Your task to perform on an android device: Go to privacy settings Image 0: 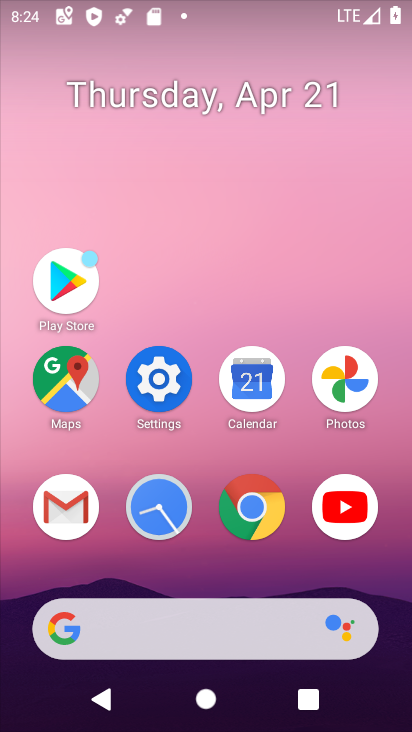
Step 0: click (163, 381)
Your task to perform on an android device: Go to privacy settings Image 1: 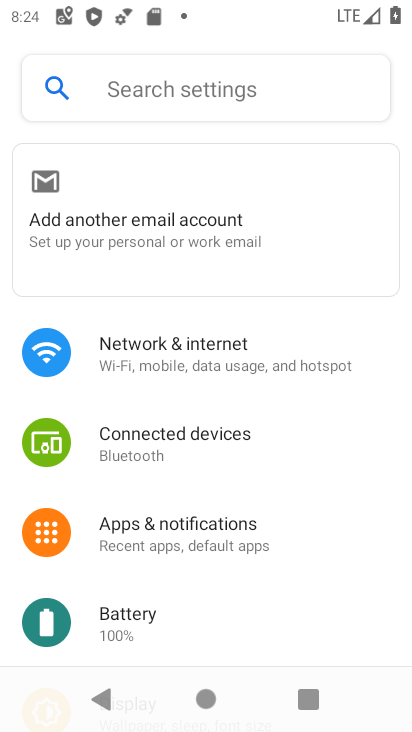
Step 1: drag from (348, 539) to (305, 95)
Your task to perform on an android device: Go to privacy settings Image 2: 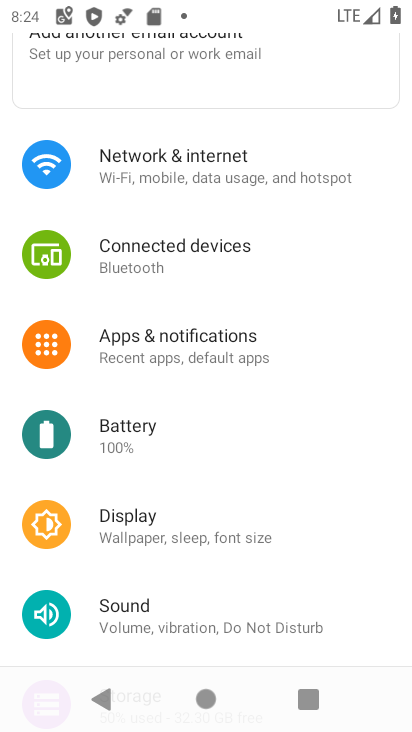
Step 2: drag from (326, 466) to (274, 96)
Your task to perform on an android device: Go to privacy settings Image 3: 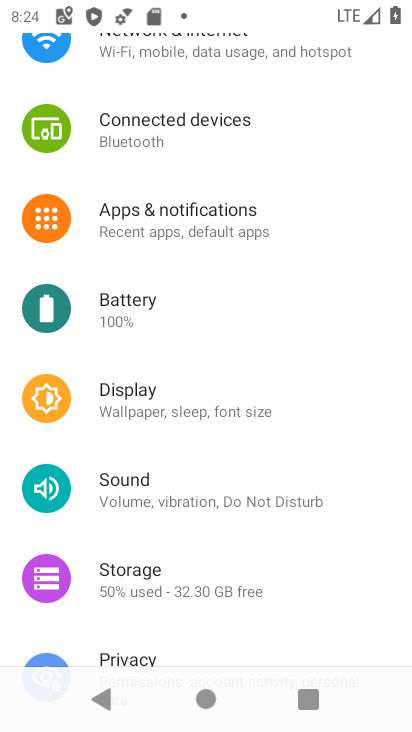
Step 3: drag from (307, 549) to (235, 160)
Your task to perform on an android device: Go to privacy settings Image 4: 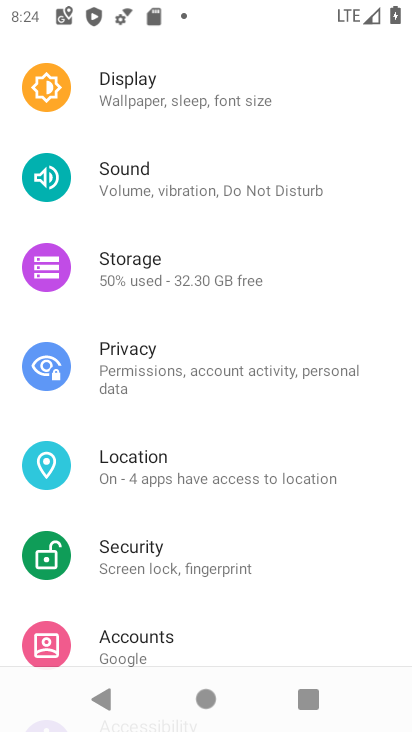
Step 4: click (126, 347)
Your task to perform on an android device: Go to privacy settings Image 5: 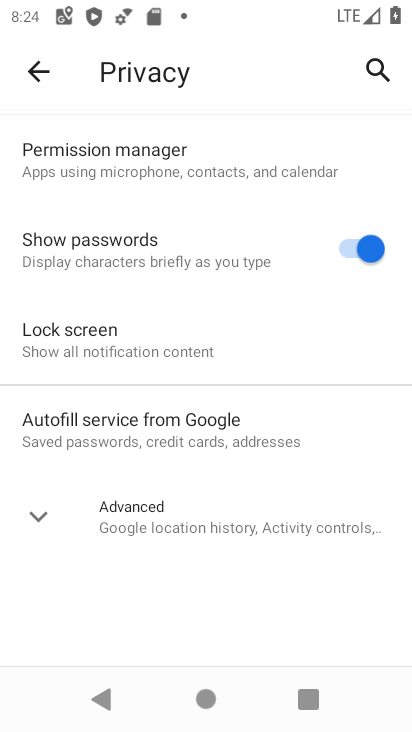
Step 5: task complete